Your task to perform on an android device: Go to privacy settings Image 0: 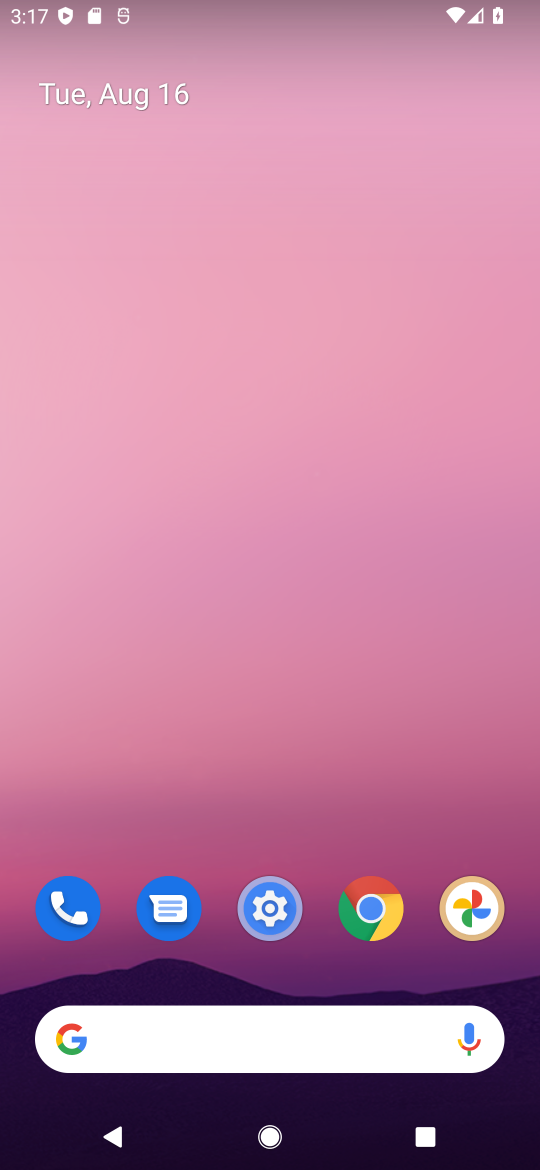
Step 0: press home button
Your task to perform on an android device: Go to privacy settings Image 1: 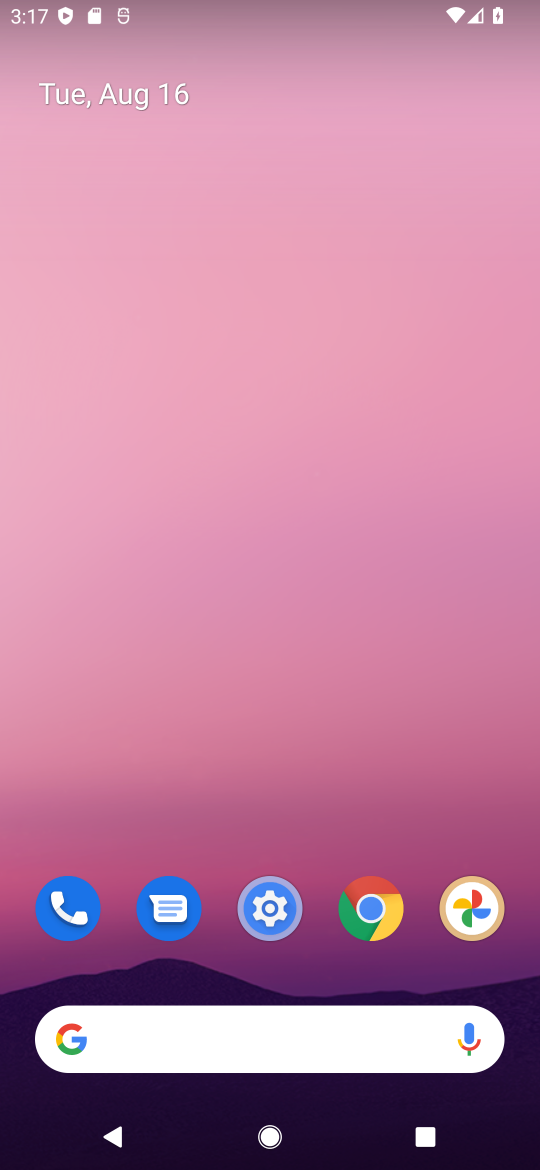
Step 1: drag from (314, 878) to (311, 29)
Your task to perform on an android device: Go to privacy settings Image 2: 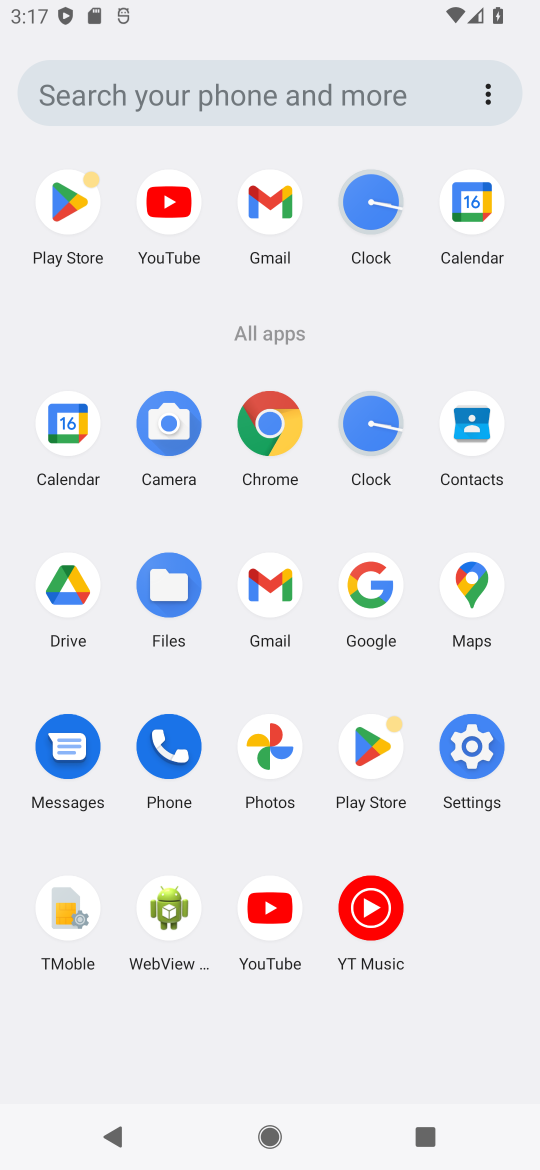
Step 2: click (469, 738)
Your task to perform on an android device: Go to privacy settings Image 3: 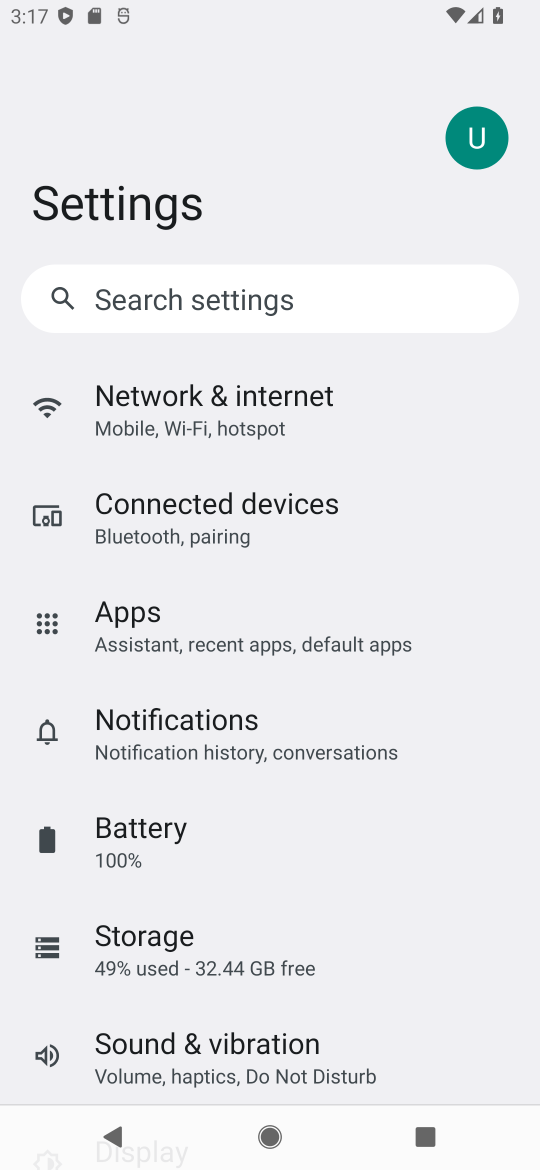
Step 3: drag from (248, 1030) to (244, 285)
Your task to perform on an android device: Go to privacy settings Image 4: 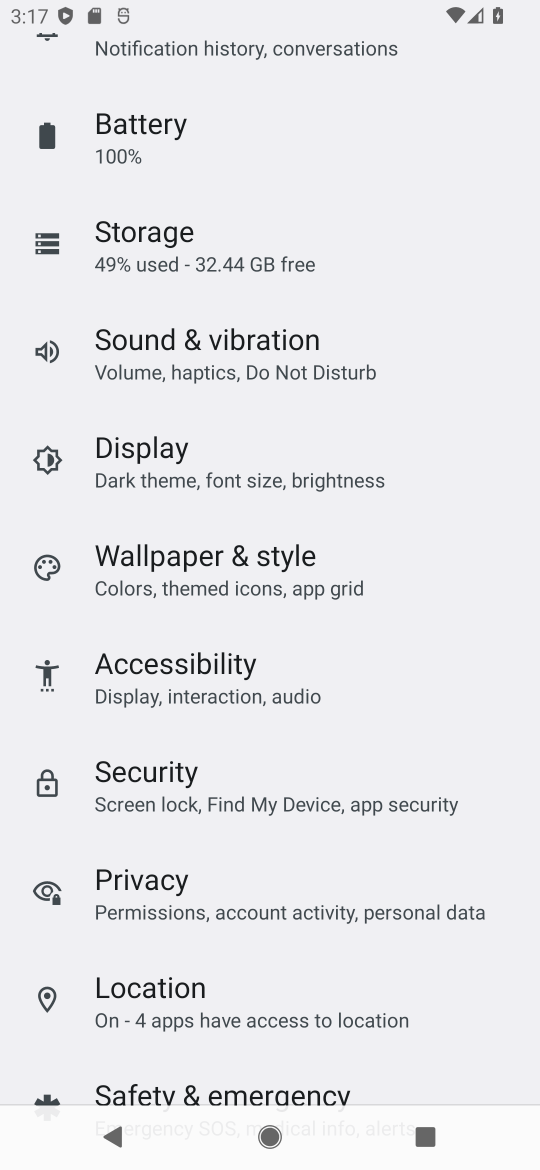
Step 4: click (216, 884)
Your task to perform on an android device: Go to privacy settings Image 5: 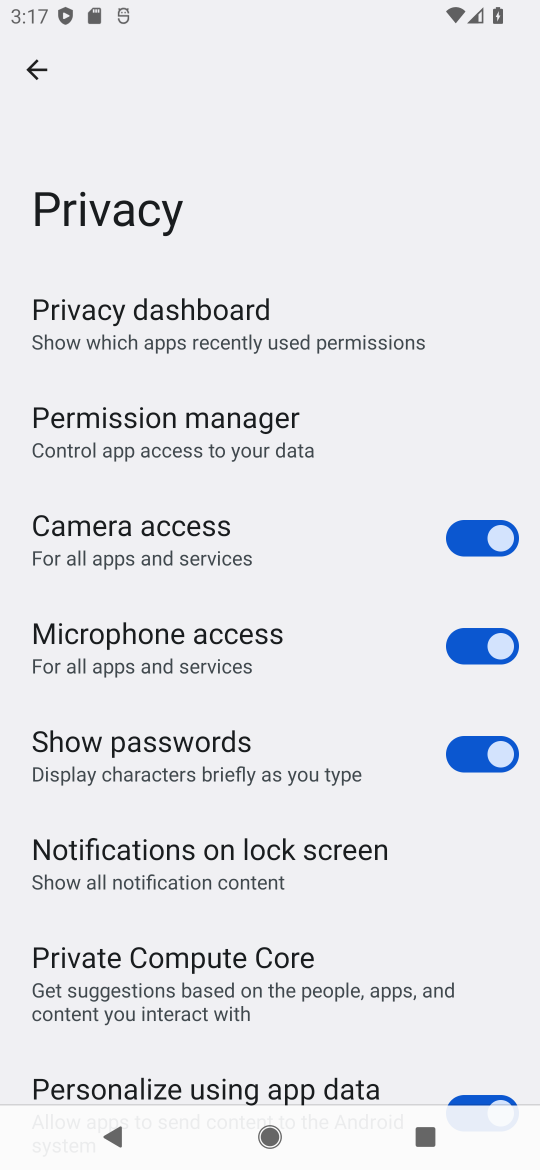
Step 5: task complete